Your task to perform on an android device: Search for seafood restaurants on Google Maps Image 0: 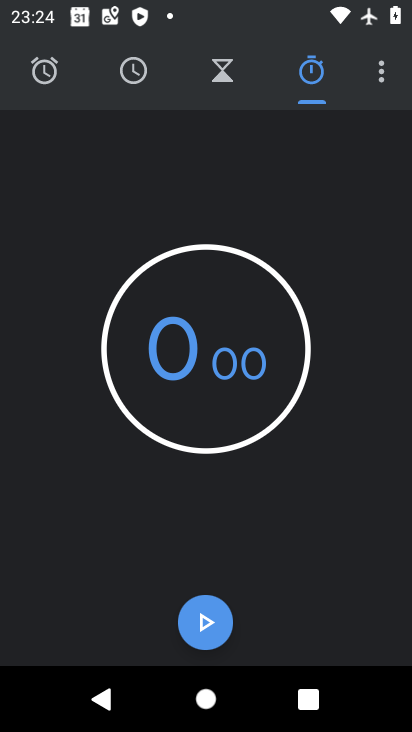
Step 0: press home button
Your task to perform on an android device: Search for seafood restaurants on Google Maps Image 1: 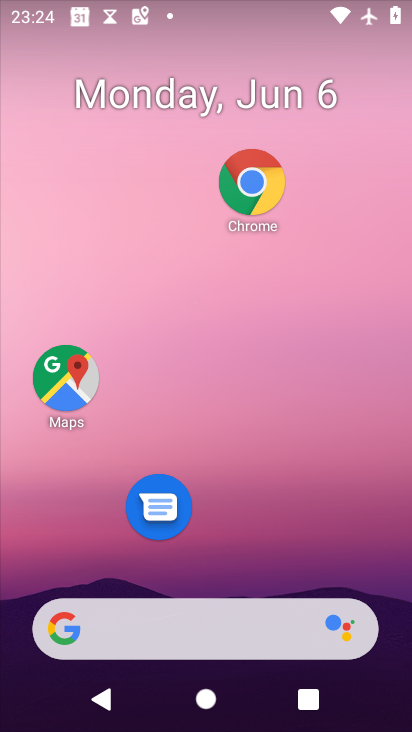
Step 1: click (69, 356)
Your task to perform on an android device: Search for seafood restaurants on Google Maps Image 2: 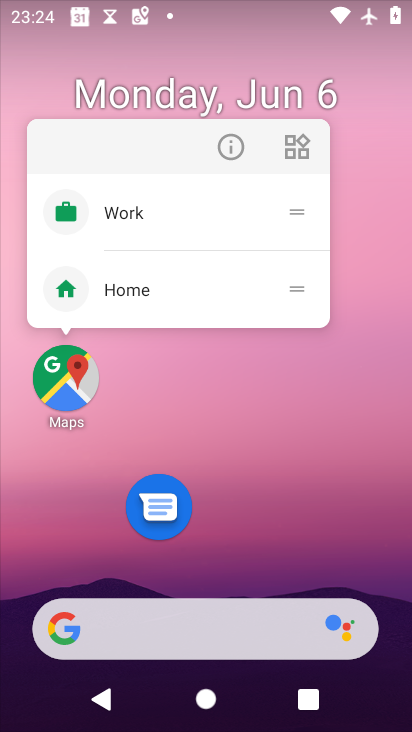
Step 2: click (70, 362)
Your task to perform on an android device: Search for seafood restaurants on Google Maps Image 3: 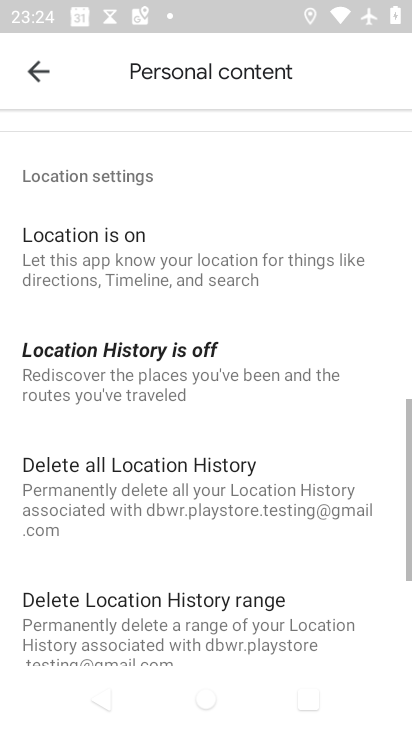
Step 3: click (46, 67)
Your task to perform on an android device: Search for seafood restaurants on Google Maps Image 4: 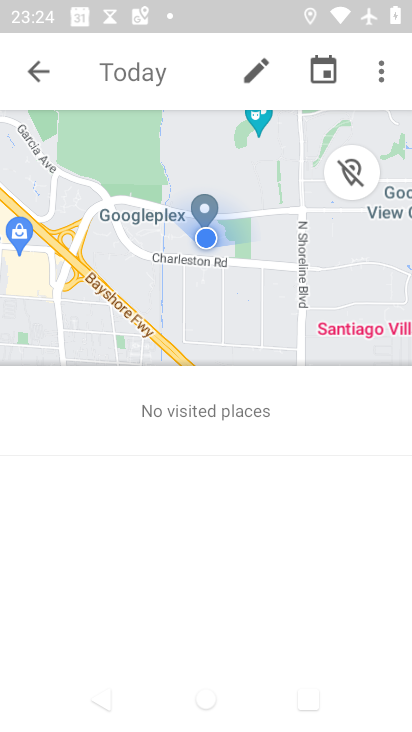
Step 4: click (48, 65)
Your task to perform on an android device: Search for seafood restaurants on Google Maps Image 5: 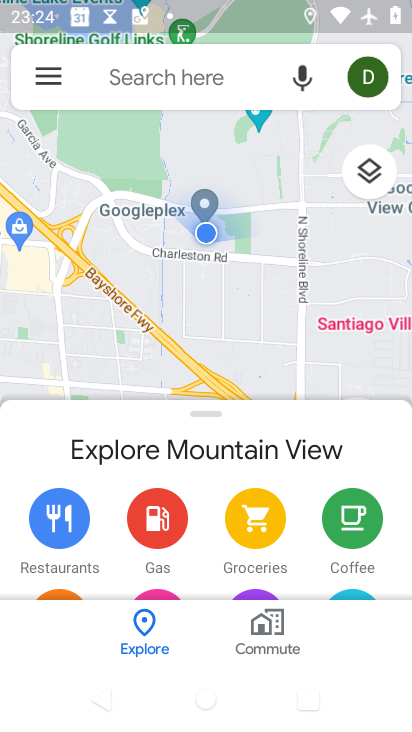
Step 5: click (110, 75)
Your task to perform on an android device: Search for seafood restaurants on Google Maps Image 6: 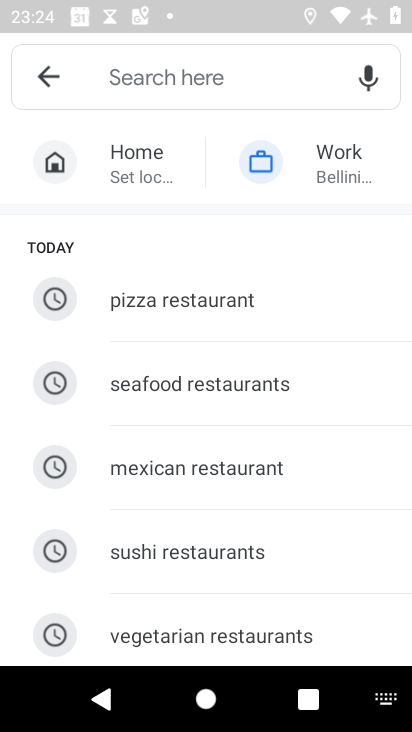
Step 6: click (180, 393)
Your task to perform on an android device: Search for seafood restaurants on Google Maps Image 7: 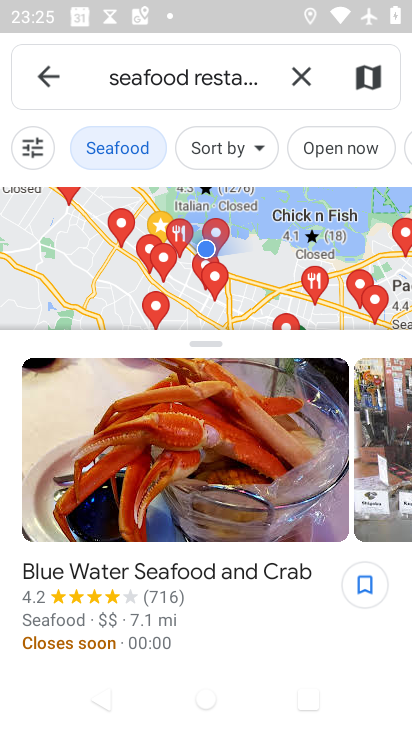
Step 7: task complete